Your task to perform on an android device: turn on sleep mode Image 0: 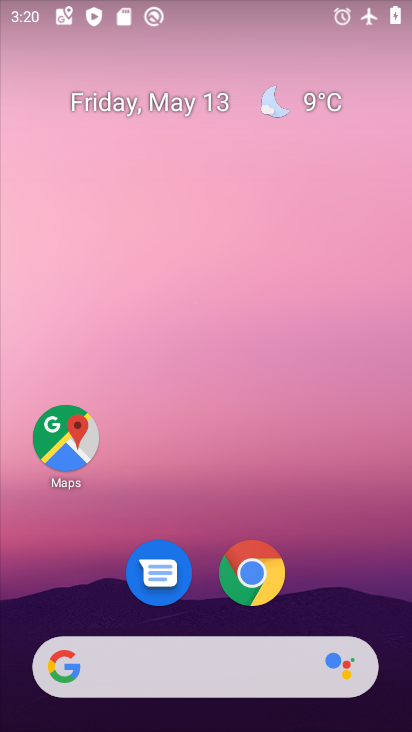
Step 0: drag from (336, 550) to (220, 104)
Your task to perform on an android device: turn on sleep mode Image 1: 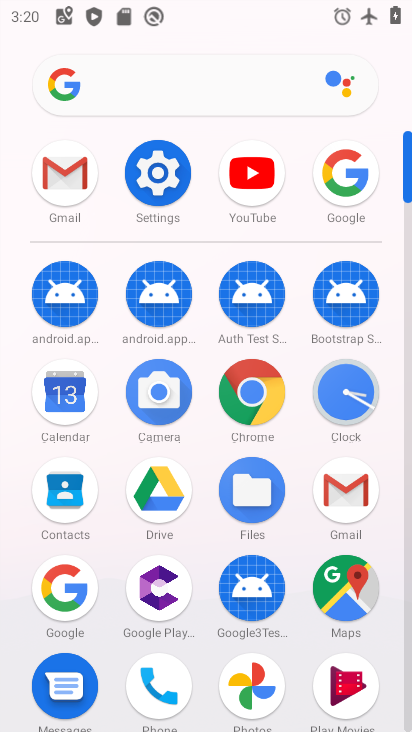
Step 1: click (158, 170)
Your task to perform on an android device: turn on sleep mode Image 2: 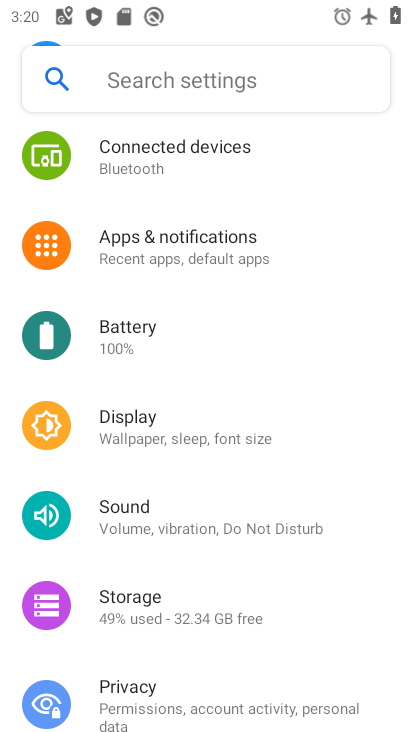
Step 2: click (212, 428)
Your task to perform on an android device: turn on sleep mode Image 3: 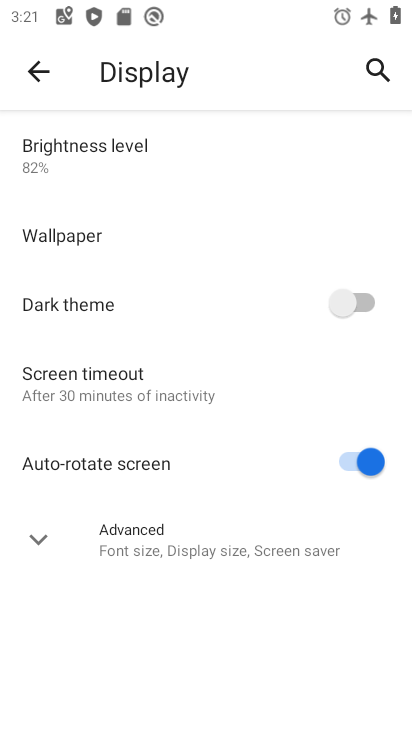
Step 3: click (185, 550)
Your task to perform on an android device: turn on sleep mode Image 4: 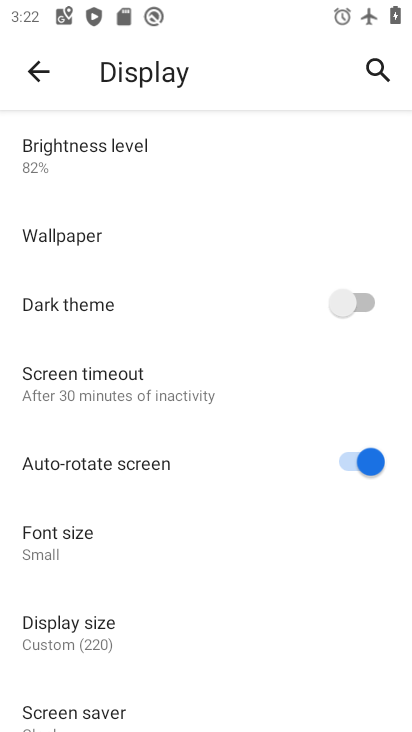
Step 4: task complete